Your task to perform on an android device: turn on airplane mode Image 0: 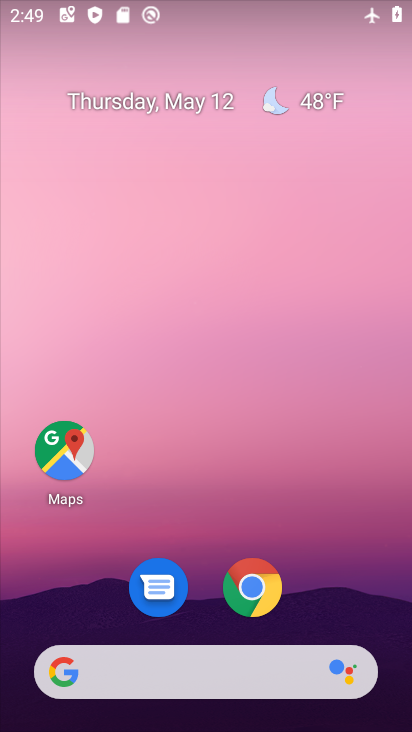
Step 0: drag from (196, 613) to (251, 168)
Your task to perform on an android device: turn on airplane mode Image 1: 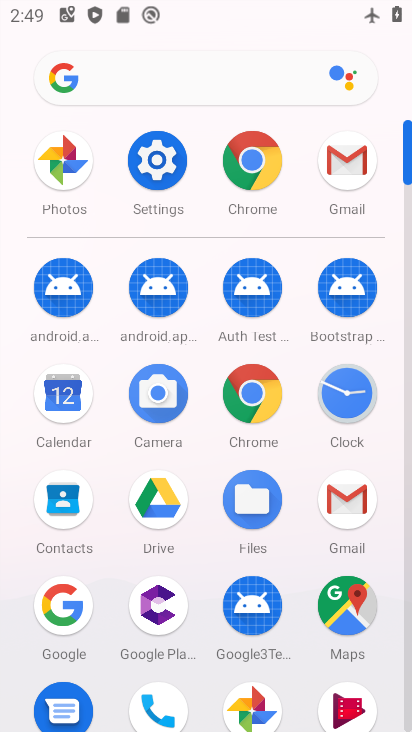
Step 1: click (148, 159)
Your task to perform on an android device: turn on airplane mode Image 2: 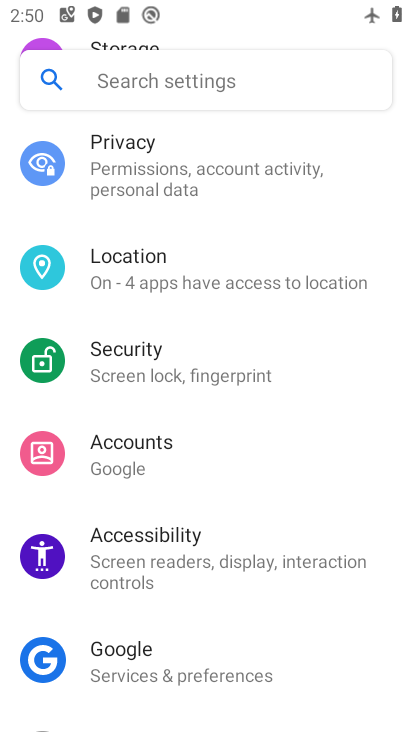
Step 2: drag from (210, 205) to (211, 552)
Your task to perform on an android device: turn on airplane mode Image 3: 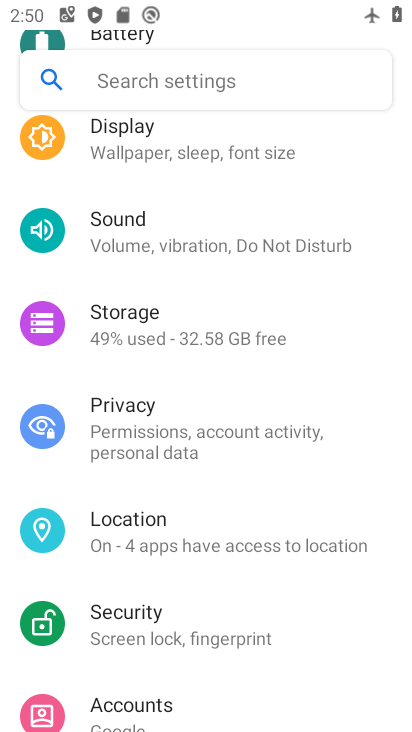
Step 3: drag from (230, 264) to (227, 670)
Your task to perform on an android device: turn on airplane mode Image 4: 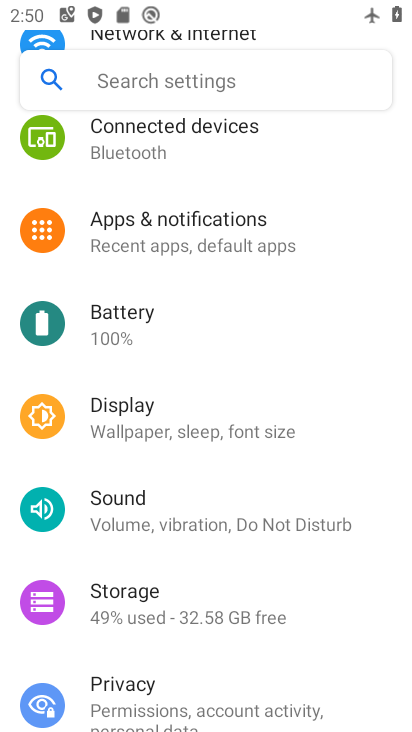
Step 4: drag from (250, 334) to (263, 700)
Your task to perform on an android device: turn on airplane mode Image 5: 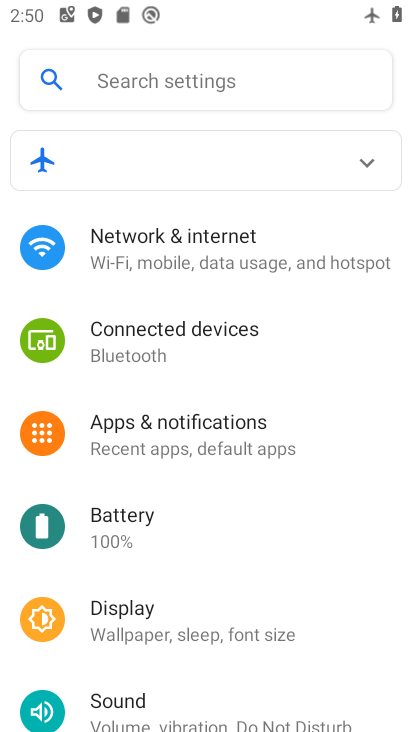
Step 5: click (246, 269)
Your task to perform on an android device: turn on airplane mode Image 6: 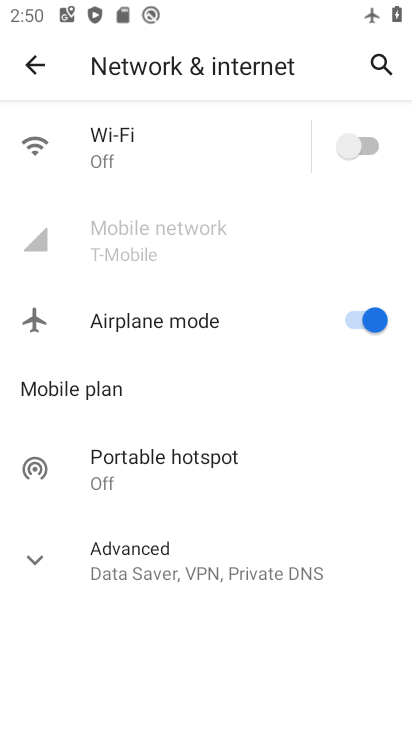
Step 6: task complete